Your task to perform on an android device: turn off javascript in the chrome app Image 0: 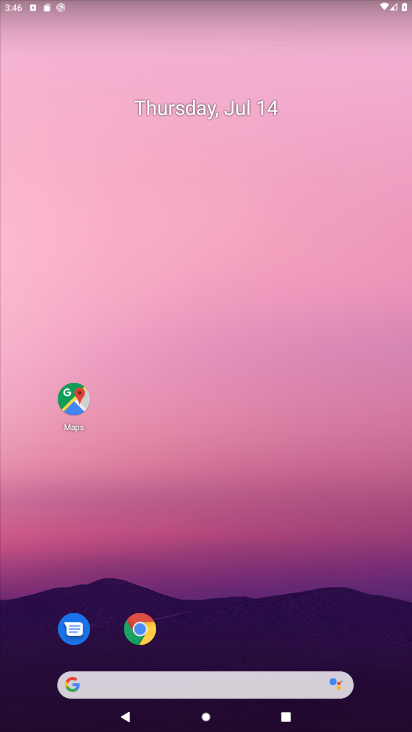
Step 0: drag from (276, 376) to (300, 256)
Your task to perform on an android device: turn off javascript in the chrome app Image 1: 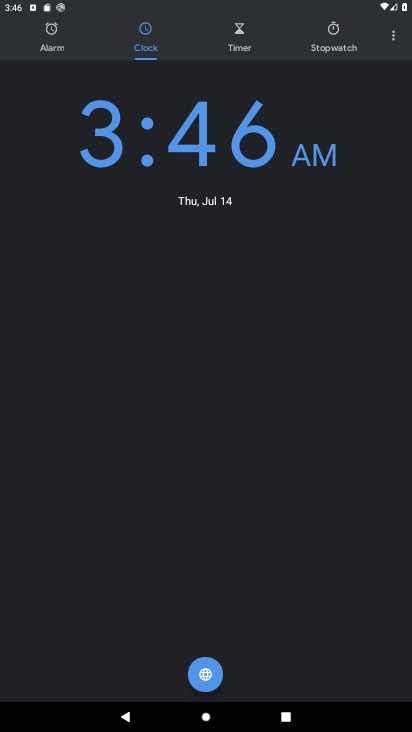
Step 1: press home button
Your task to perform on an android device: turn off javascript in the chrome app Image 2: 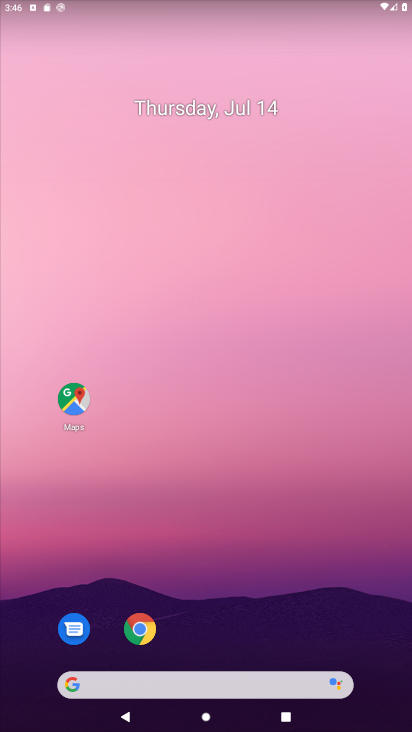
Step 2: drag from (277, 630) to (279, 458)
Your task to perform on an android device: turn off javascript in the chrome app Image 3: 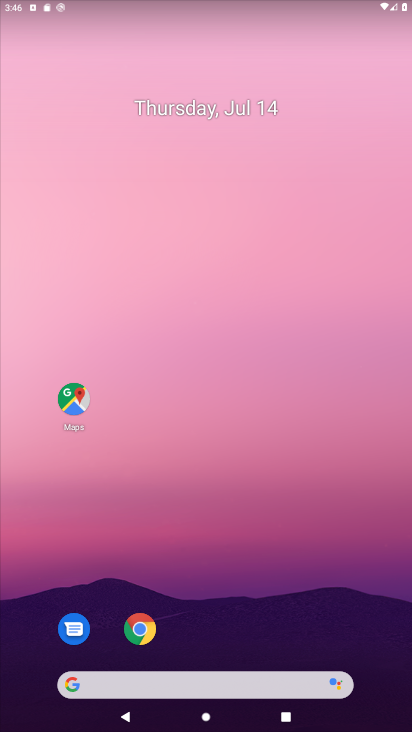
Step 3: drag from (212, 651) to (219, 218)
Your task to perform on an android device: turn off javascript in the chrome app Image 4: 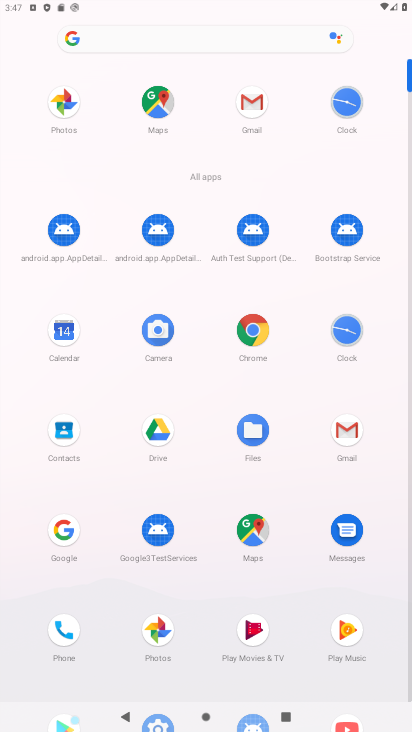
Step 4: drag from (297, 517) to (297, 347)
Your task to perform on an android device: turn off javascript in the chrome app Image 5: 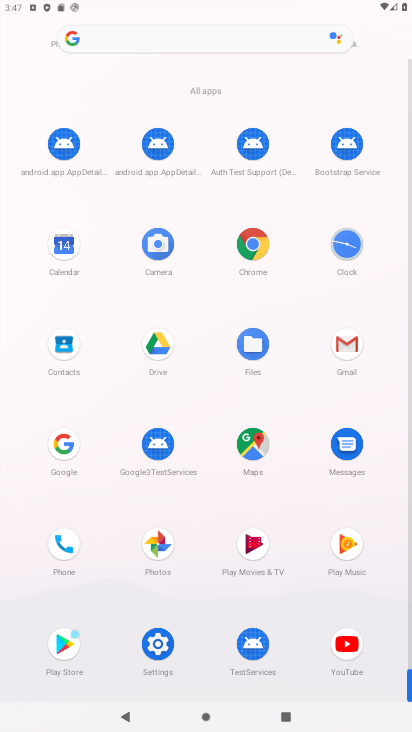
Step 5: click (253, 270)
Your task to perform on an android device: turn off javascript in the chrome app Image 6: 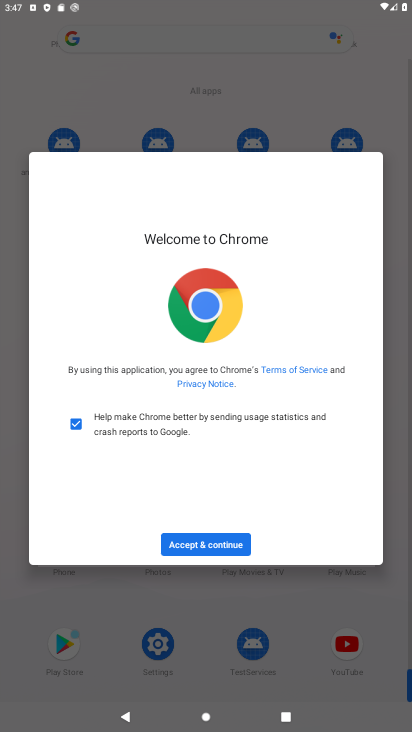
Step 6: click (216, 542)
Your task to perform on an android device: turn off javascript in the chrome app Image 7: 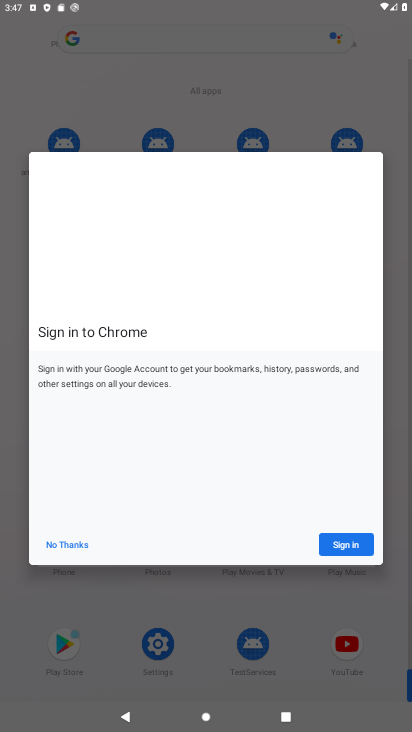
Step 7: click (88, 542)
Your task to perform on an android device: turn off javascript in the chrome app Image 8: 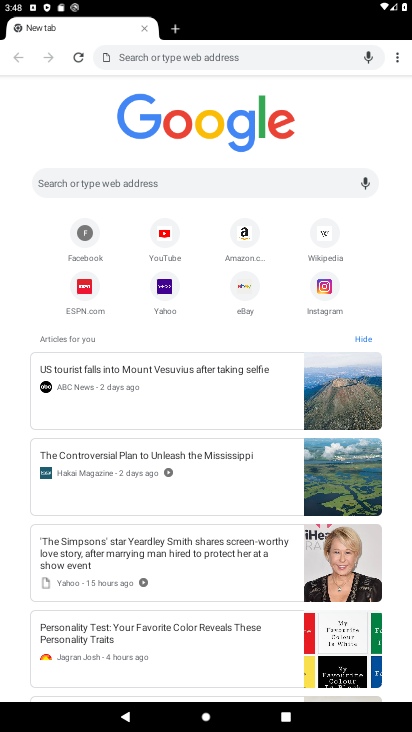
Step 8: click (397, 54)
Your task to perform on an android device: turn off javascript in the chrome app Image 9: 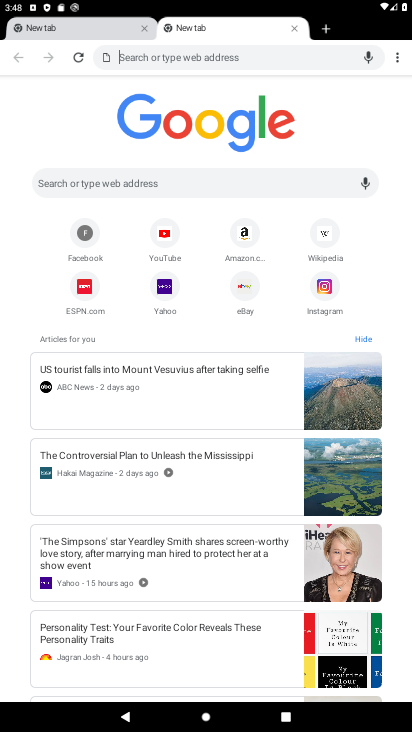
Step 9: click (399, 65)
Your task to perform on an android device: turn off javascript in the chrome app Image 10: 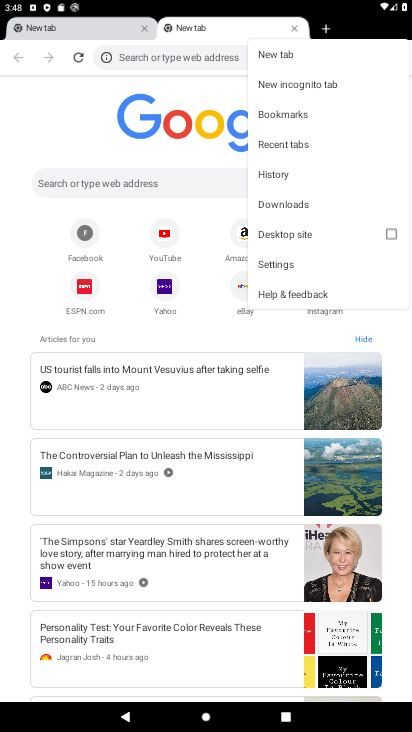
Step 10: click (282, 264)
Your task to perform on an android device: turn off javascript in the chrome app Image 11: 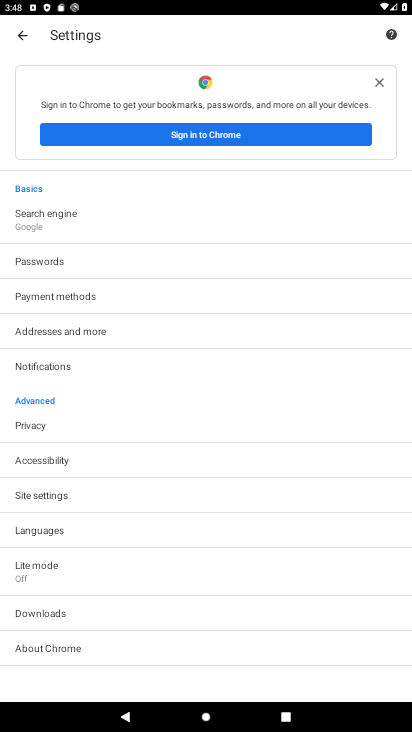
Step 11: click (63, 498)
Your task to perform on an android device: turn off javascript in the chrome app Image 12: 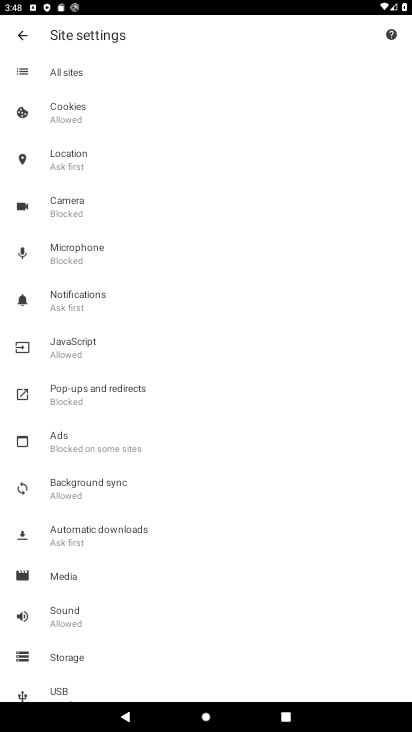
Step 12: click (102, 344)
Your task to perform on an android device: turn off javascript in the chrome app Image 13: 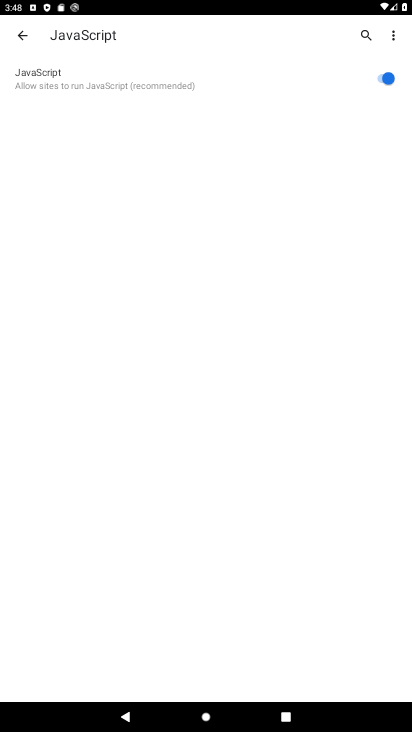
Step 13: click (378, 86)
Your task to perform on an android device: turn off javascript in the chrome app Image 14: 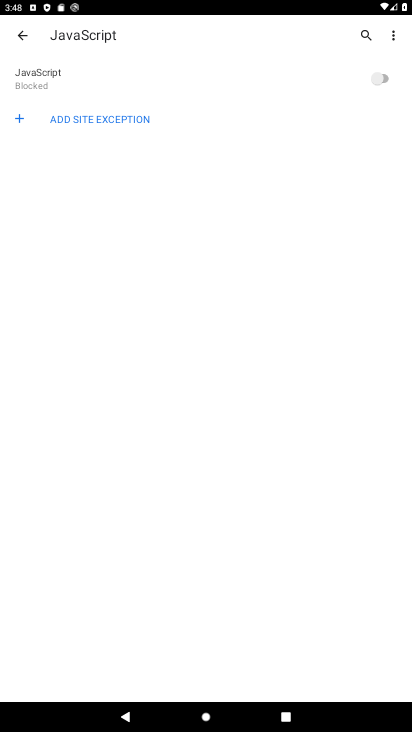
Step 14: task complete